Your task to perform on an android device: choose inbox layout in the gmail app Image 0: 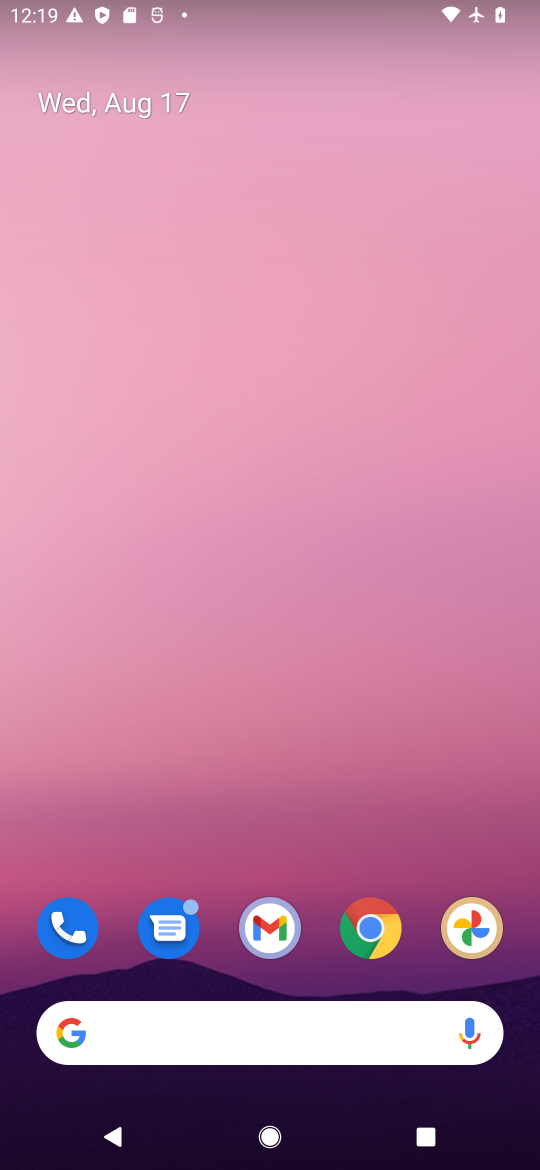
Step 0: click (277, 916)
Your task to perform on an android device: choose inbox layout in the gmail app Image 1: 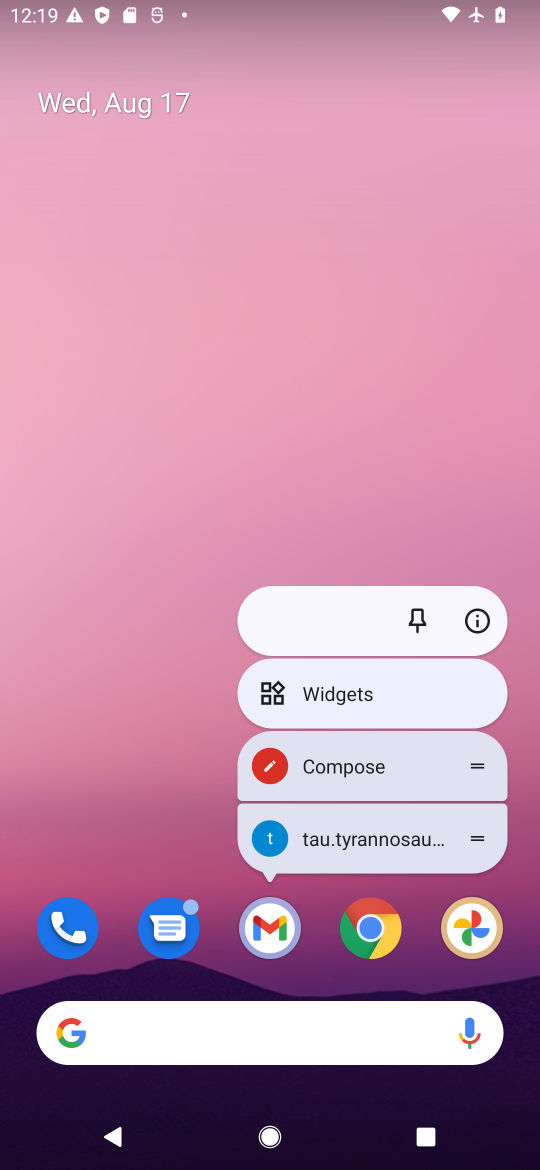
Step 1: click (275, 917)
Your task to perform on an android device: choose inbox layout in the gmail app Image 2: 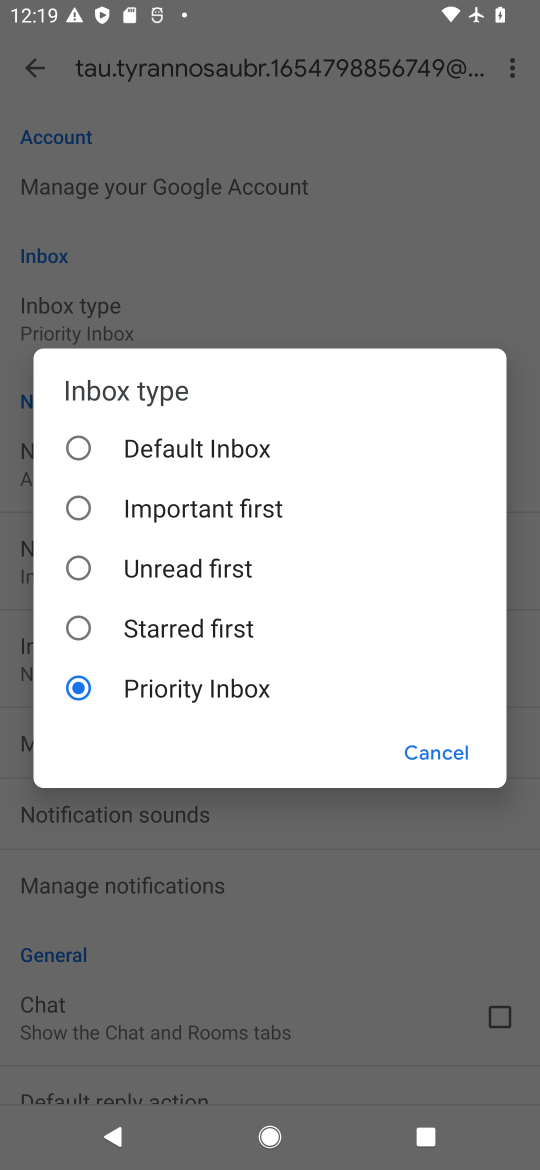
Step 2: click (202, 456)
Your task to perform on an android device: choose inbox layout in the gmail app Image 3: 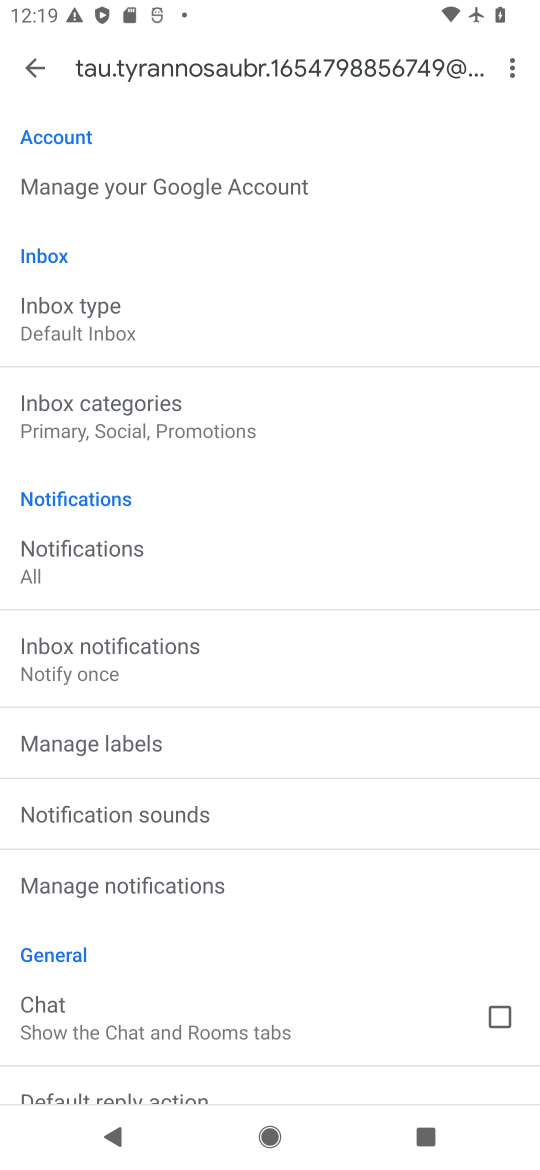
Step 3: click (184, 302)
Your task to perform on an android device: choose inbox layout in the gmail app Image 4: 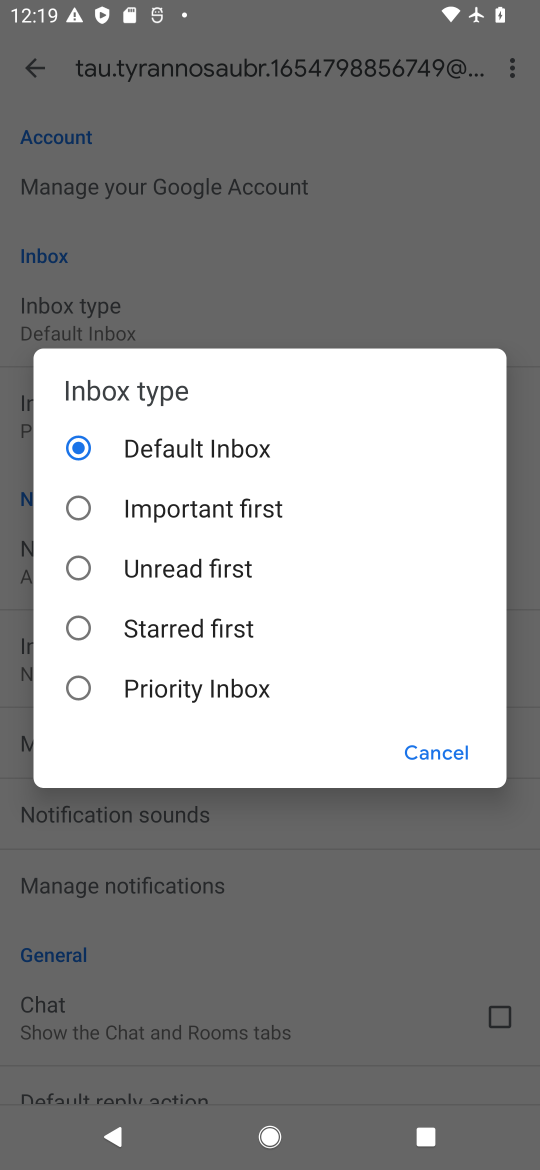
Step 4: click (212, 699)
Your task to perform on an android device: choose inbox layout in the gmail app Image 5: 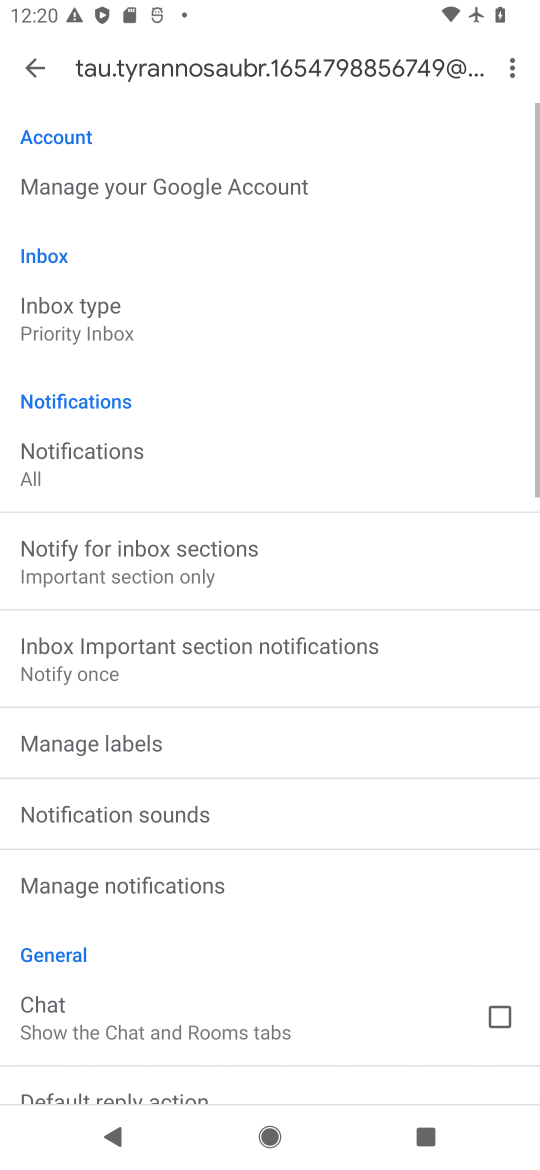
Step 5: task complete